Your task to perform on an android device: Clear all items from cart on walmart.com. Search for "beats solo 3" on walmart.com, select the first entry, add it to the cart, then select checkout. Image 0: 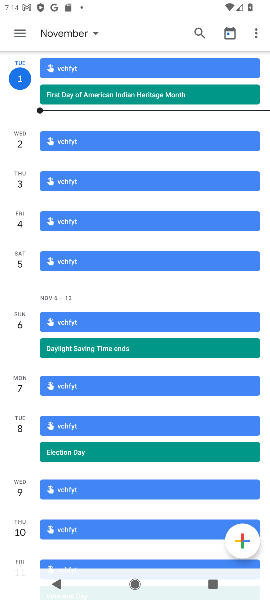
Step 0: press home button
Your task to perform on an android device: Clear all items from cart on walmart.com. Search for "beats solo 3" on walmart.com, select the first entry, add it to the cart, then select checkout. Image 1: 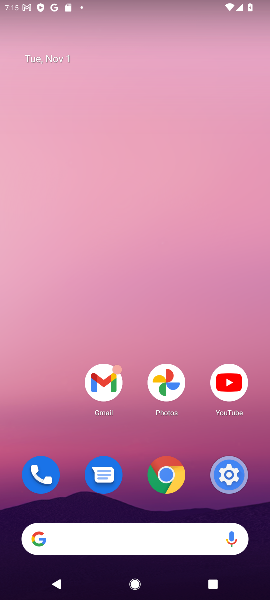
Step 1: click (127, 542)
Your task to perform on an android device: Clear all items from cart on walmart.com. Search for "beats solo 3" on walmart.com, select the first entry, add it to the cart, then select checkout. Image 2: 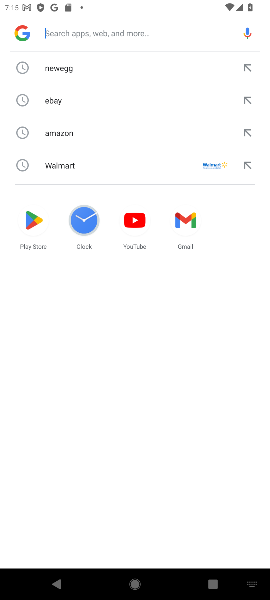
Step 2: type "walmart.com"
Your task to perform on an android device: Clear all items from cart on walmart.com. Search for "beats solo 3" on walmart.com, select the first entry, add it to the cart, then select checkout. Image 3: 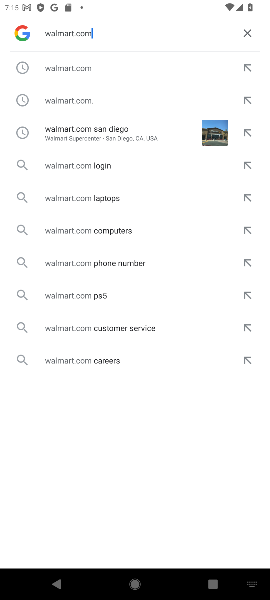
Step 3: click (82, 138)
Your task to perform on an android device: Clear all items from cart on walmart.com. Search for "beats solo 3" on walmart.com, select the first entry, add it to the cart, then select checkout. Image 4: 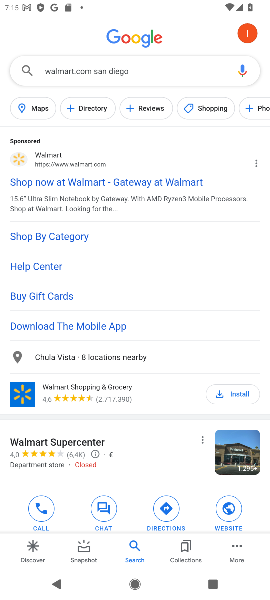
Step 4: click (49, 178)
Your task to perform on an android device: Clear all items from cart on walmart.com. Search for "beats solo 3" on walmart.com, select the first entry, add it to the cart, then select checkout. Image 5: 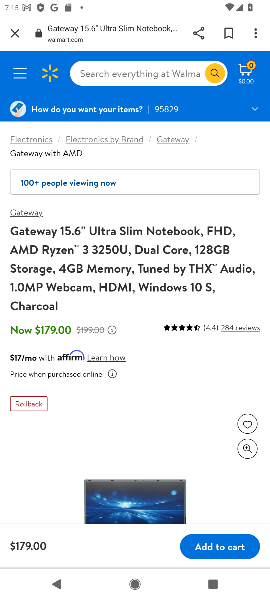
Step 5: click (130, 64)
Your task to perform on an android device: Clear all items from cart on walmart.com. Search for "beats solo 3" on walmart.com, select the first entry, add it to the cart, then select checkout. Image 6: 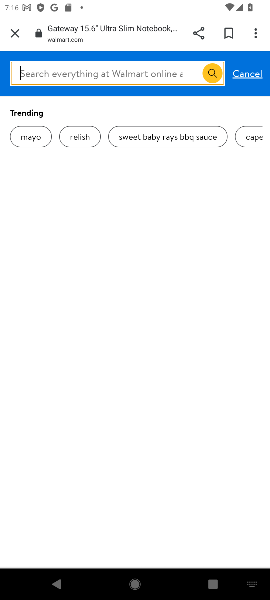
Step 6: type "beats solo 3"
Your task to perform on an android device: Clear all items from cart on walmart.com. Search for "beats solo 3" on walmart.com, select the first entry, add it to the cart, then select checkout. Image 7: 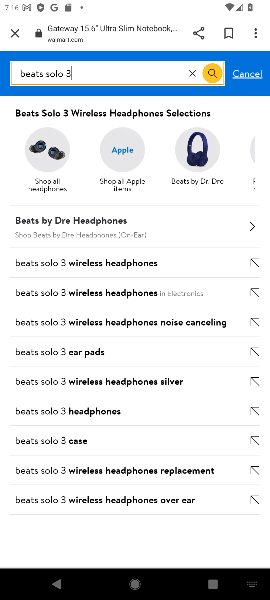
Step 7: click (51, 158)
Your task to perform on an android device: Clear all items from cart on walmart.com. Search for "beats solo 3" on walmart.com, select the first entry, add it to the cart, then select checkout. Image 8: 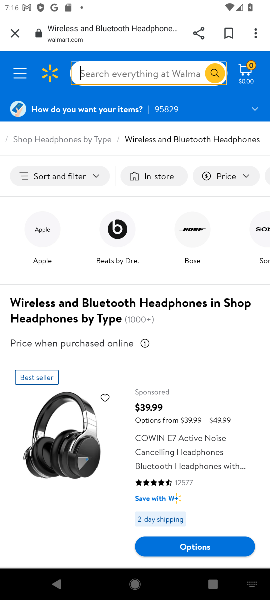
Step 8: click (180, 541)
Your task to perform on an android device: Clear all items from cart on walmart.com. Search for "beats solo 3" on walmart.com, select the first entry, add it to the cart, then select checkout. Image 9: 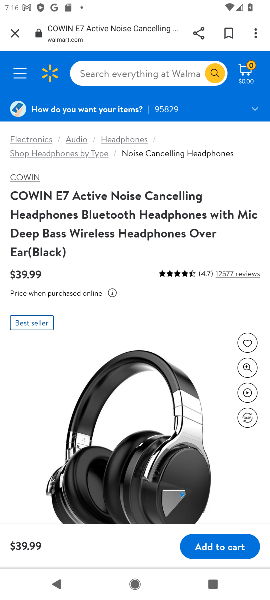
Step 9: click (202, 546)
Your task to perform on an android device: Clear all items from cart on walmart.com. Search for "beats solo 3" on walmart.com, select the first entry, add it to the cart, then select checkout. Image 10: 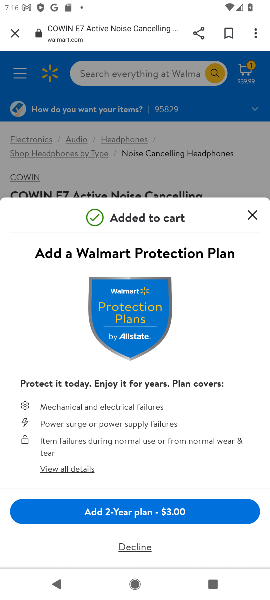
Step 10: click (134, 546)
Your task to perform on an android device: Clear all items from cart on walmart.com. Search for "beats solo 3" on walmart.com, select the first entry, add it to the cart, then select checkout. Image 11: 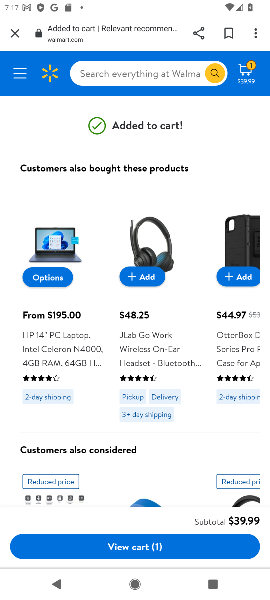
Step 11: click (132, 548)
Your task to perform on an android device: Clear all items from cart on walmart.com. Search for "beats solo 3" on walmart.com, select the first entry, add it to the cart, then select checkout. Image 12: 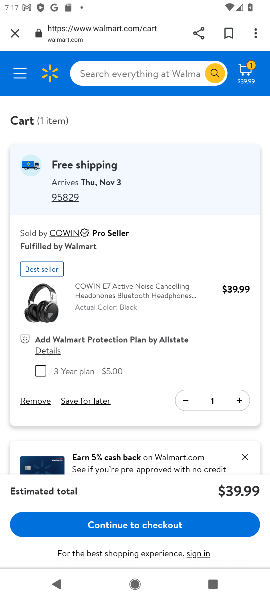
Step 12: click (137, 522)
Your task to perform on an android device: Clear all items from cart on walmart.com. Search for "beats solo 3" on walmart.com, select the first entry, add it to the cart, then select checkout. Image 13: 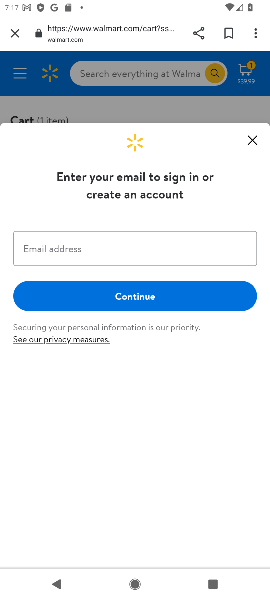
Step 13: task complete